Your task to perform on an android device: find snoozed emails in the gmail app Image 0: 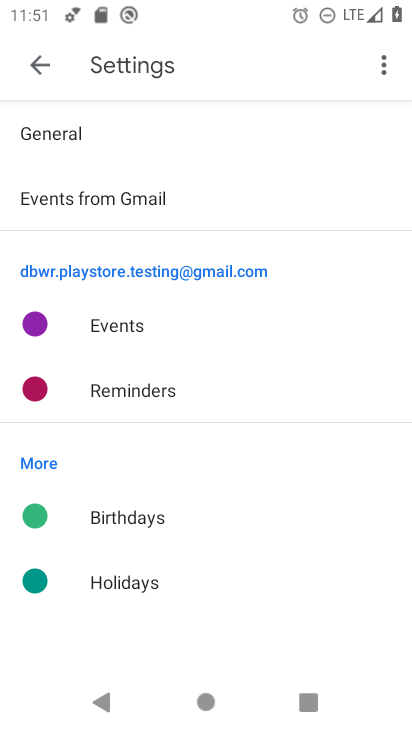
Step 0: press home button
Your task to perform on an android device: find snoozed emails in the gmail app Image 1: 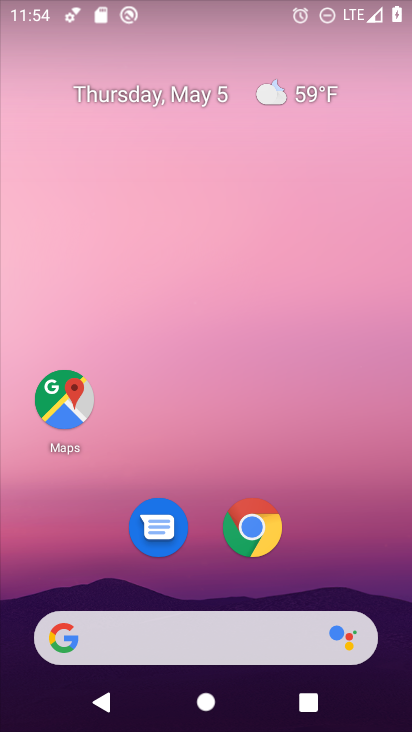
Step 1: drag from (255, 670) to (255, 50)
Your task to perform on an android device: find snoozed emails in the gmail app Image 2: 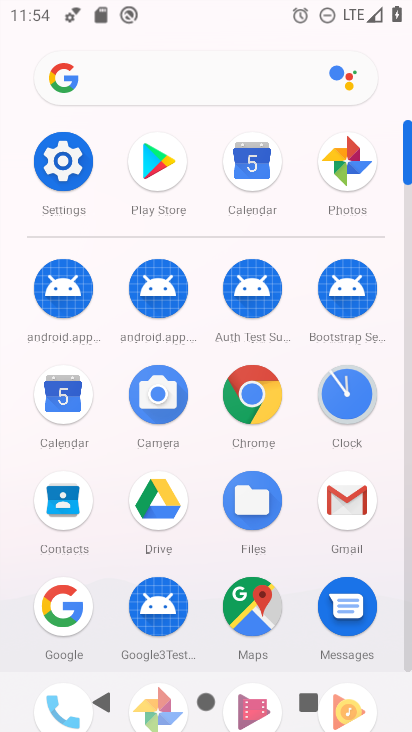
Step 2: click (343, 507)
Your task to perform on an android device: find snoozed emails in the gmail app Image 3: 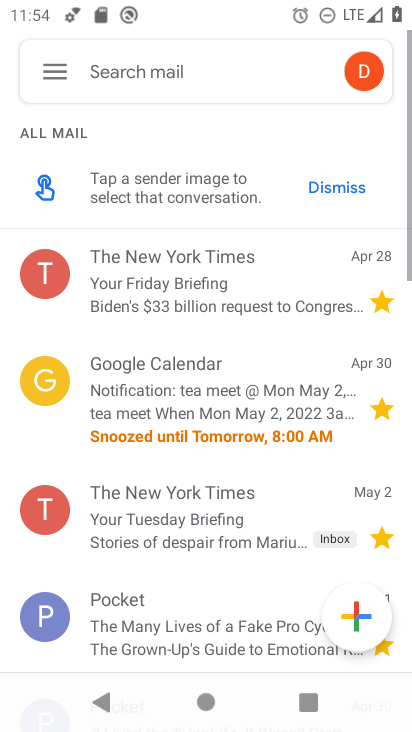
Step 3: click (50, 70)
Your task to perform on an android device: find snoozed emails in the gmail app Image 4: 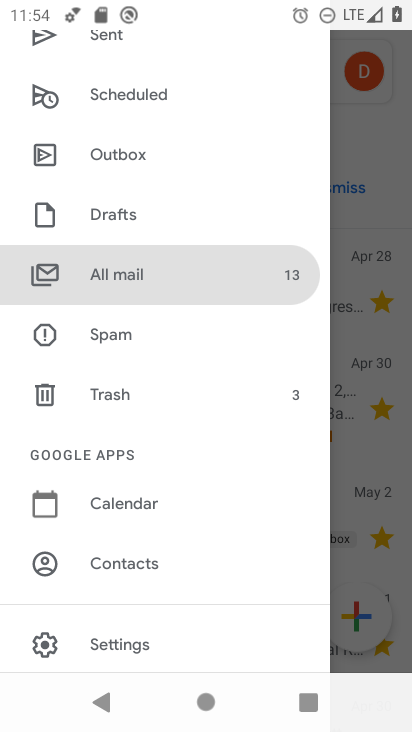
Step 4: drag from (219, 134) to (220, 587)
Your task to perform on an android device: find snoozed emails in the gmail app Image 5: 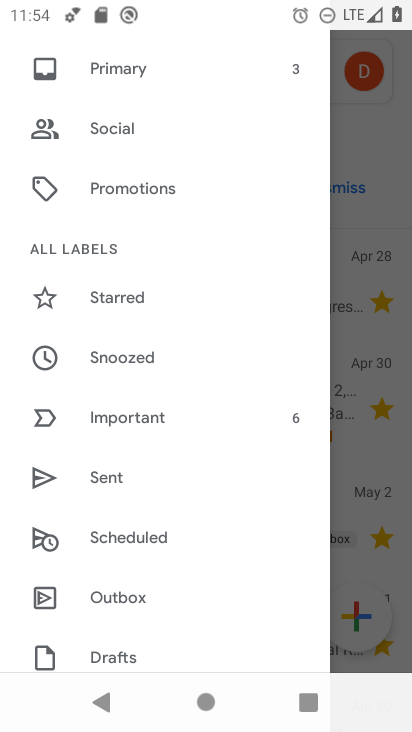
Step 5: click (154, 363)
Your task to perform on an android device: find snoozed emails in the gmail app Image 6: 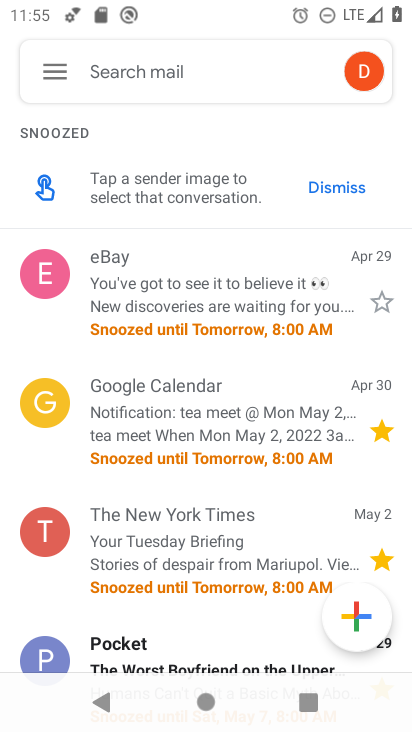
Step 6: task complete